Your task to perform on an android device: Open Wikipedia Image 0: 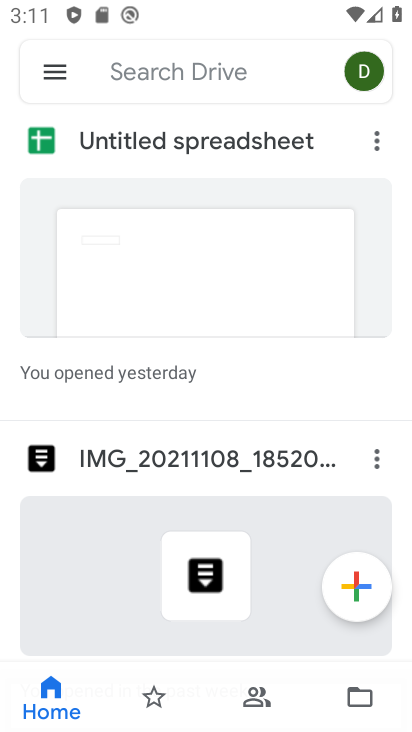
Step 0: press back button
Your task to perform on an android device: Open Wikipedia Image 1: 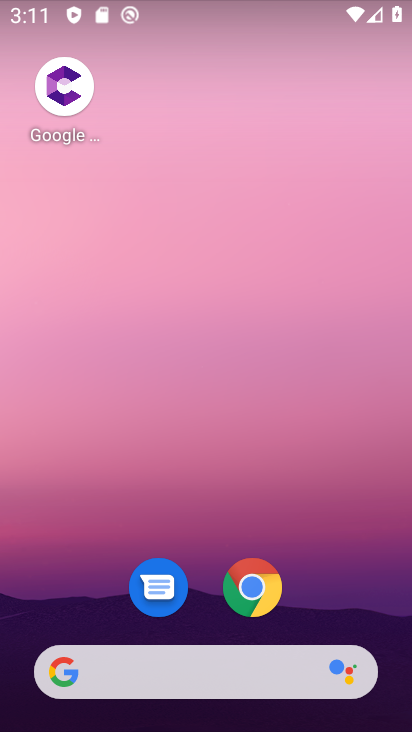
Step 1: drag from (333, 538) to (234, 11)
Your task to perform on an android device: Open Wikipedia Image 2: 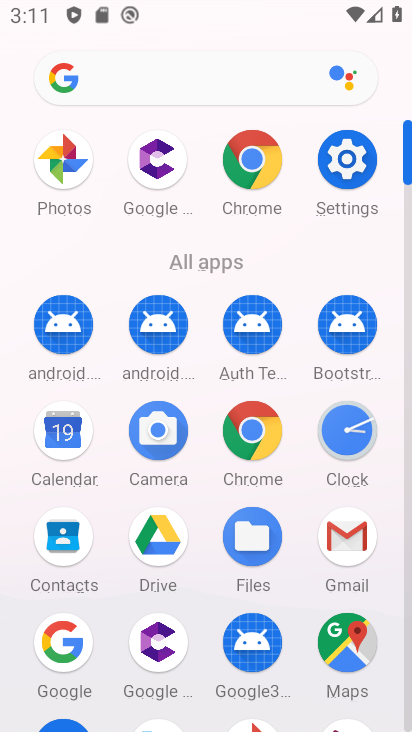
Step 2: click (249, 158)
Your task to perform on an android device: Open Wikipedia Image 3: 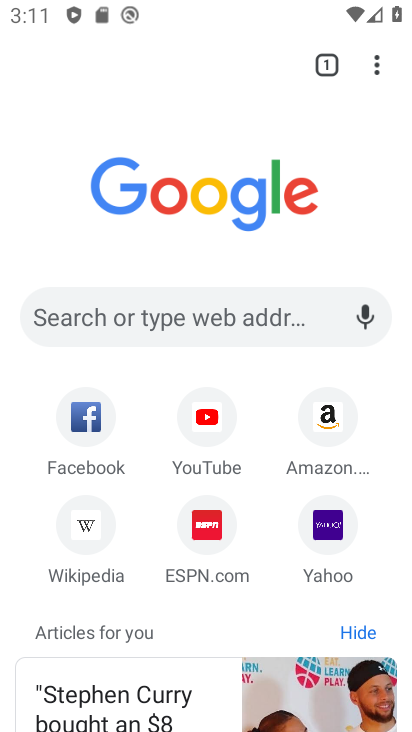
Step 3: click (89, 519)
Your task to perform on an android device: Open Wikipedia Image 4: 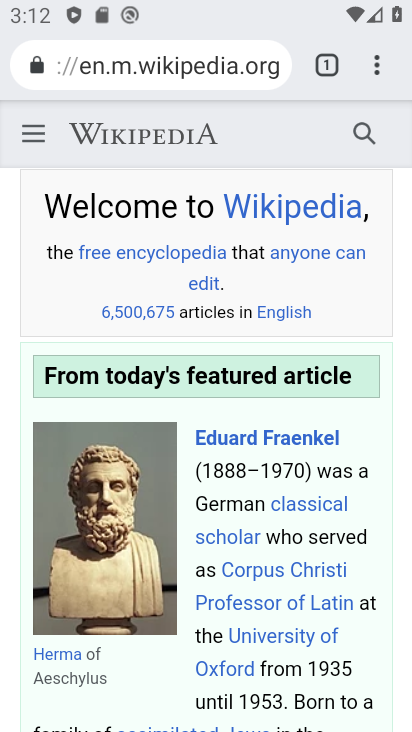
Step 4: task complete